Your task to perform on an android device: Go to Amazon Image 0: 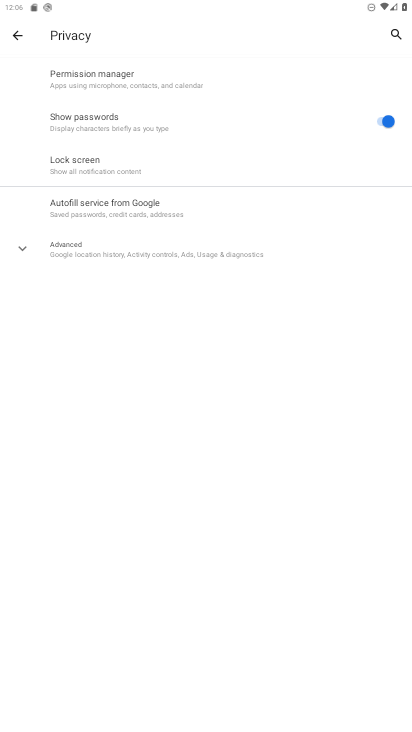
Step 0: press home button
Your task to perform on an android device: Go to Amazon Image 1: 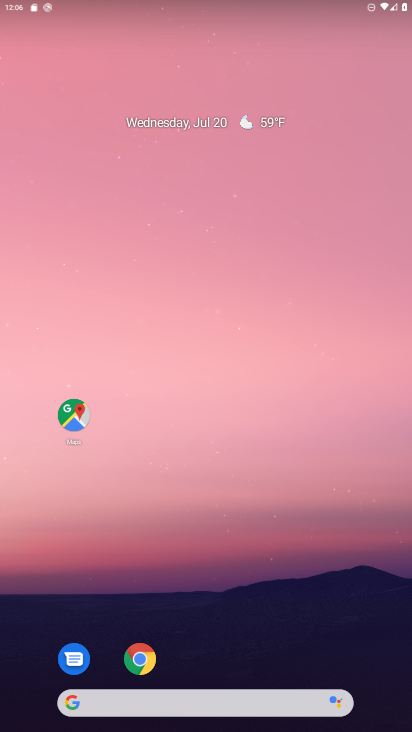
Step 1: drag from (283, 604) to (271, 65)
Your task to perform on an android device: Go to Amazon Image 2: 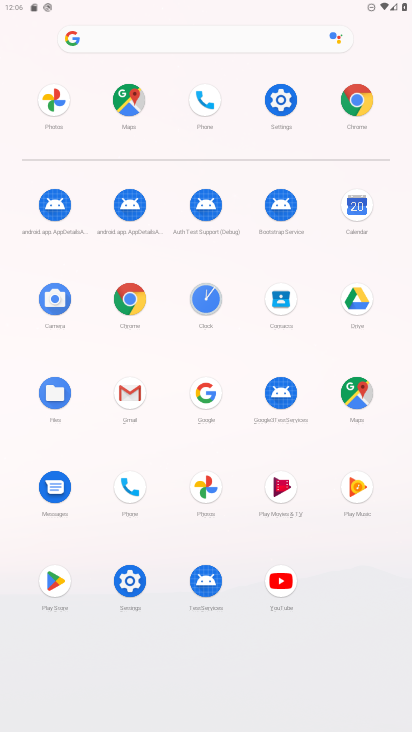
Step 2: click (133, 298)
Your task to perform on an android device: Go to Amazon Image 3: 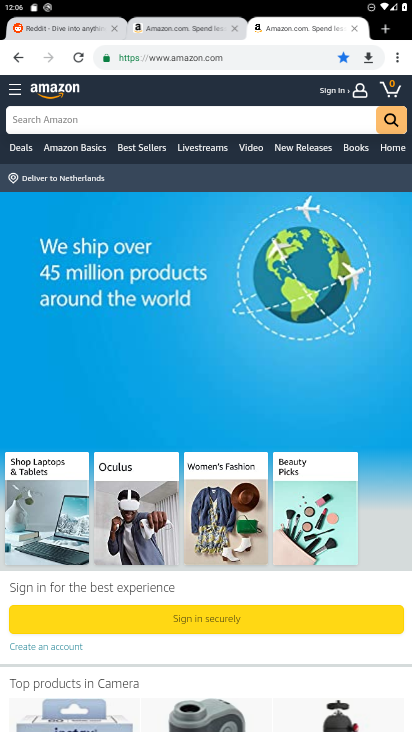
Step 3: task complete